Your task to perform on an android device: turn notification dots on Image 0: 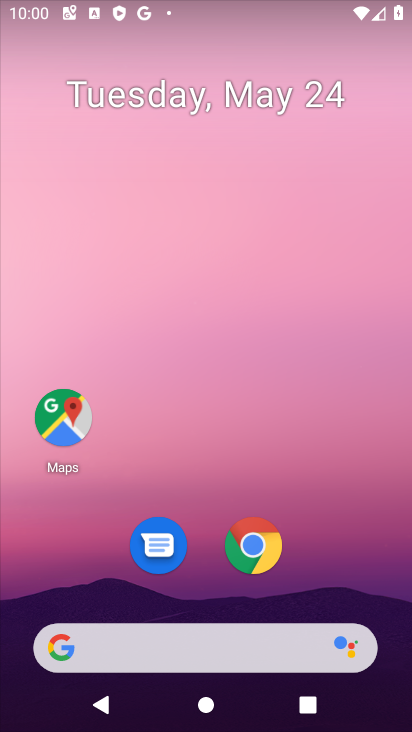
Step 0: drag from (205, 465) to (269, 18)
Your task to perform on an android device: turn notification dots on Image 1: 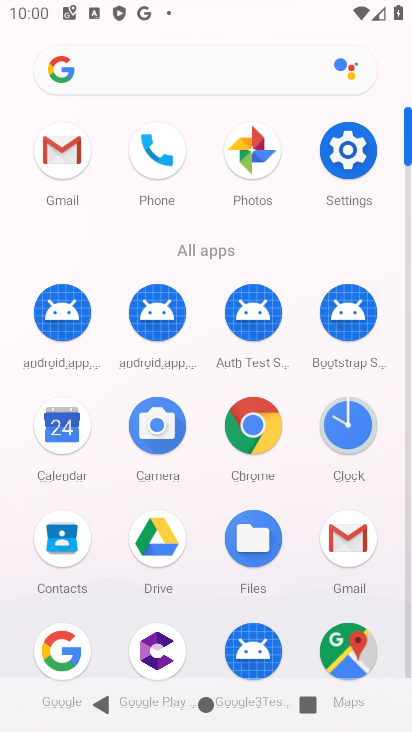
Step 1: click (335, 150)
Your task to perform on an android device: turn notification dots on Image 2: 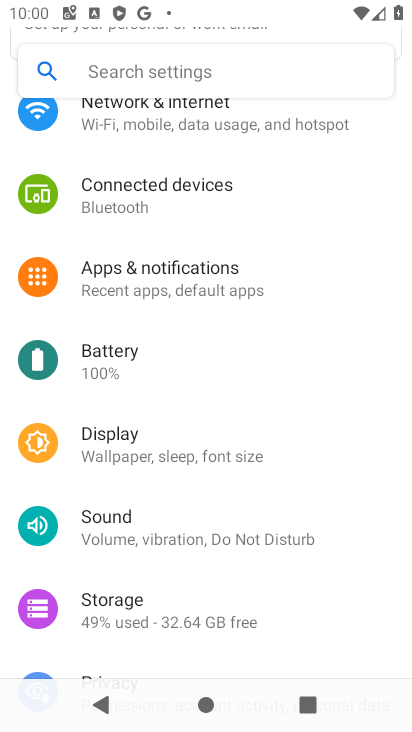
Step 2: drag from (276, 206) to (273, 490)
Your task to perform on an android device: turn notification dots on Image 3: 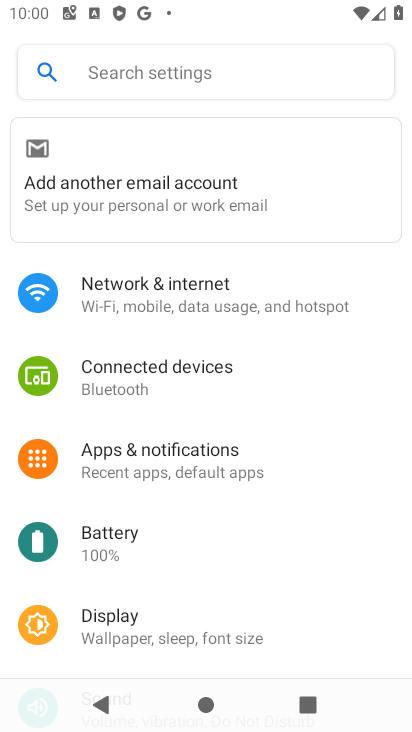
Step 3: click (206, 448)
Your task to perform on an android device: turn notification dots on Image 4: 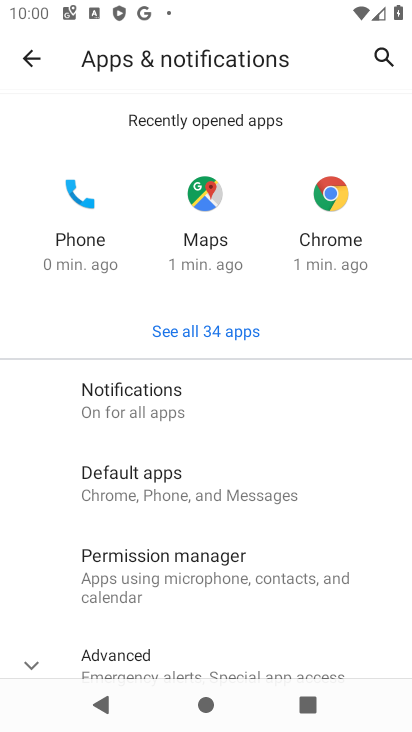
Step 4: click (231, 408)
Your task to perform on an android device: turn notification dots on Image 5: 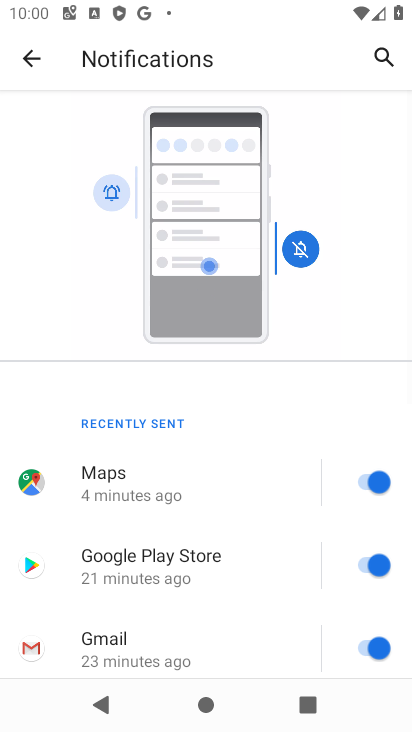
Step 5: drag from (215, 502) to (280, 5)
Your task to perform on an android device: turn notification dots on Image 6: 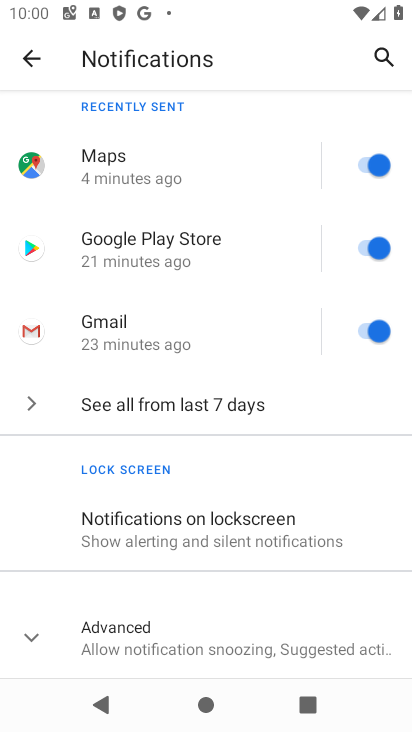
Step 6: click (28, 643)
Your task to perform on an android device: turn notification dots on Image 7: 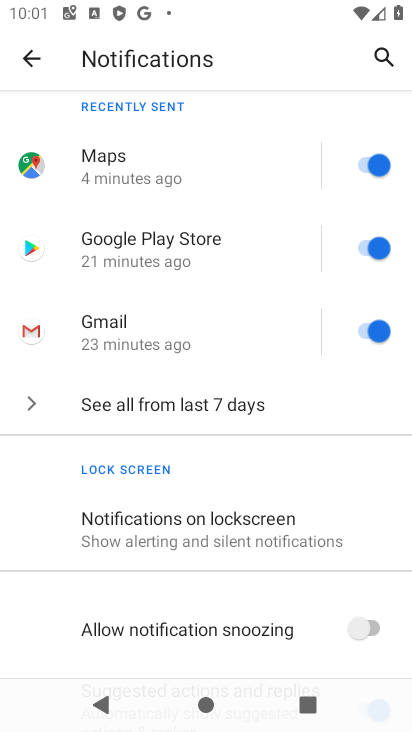
Step 7: drag from (235, 520) to (308, 149)
Your task to perform on an android device: turn notification dots on Image 8: 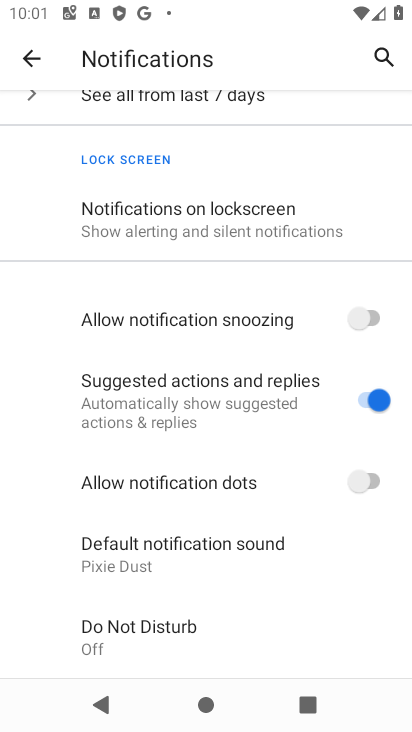
Step 8: click (371, 474)
Your task to perform on an android device: turn notification dots on Image 9: 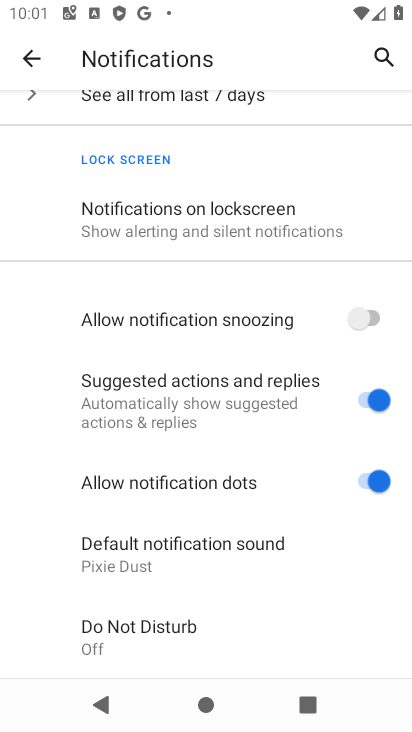
Step 9: task complete